Your task to perform on an android device: Open Google Chrome Image 0: 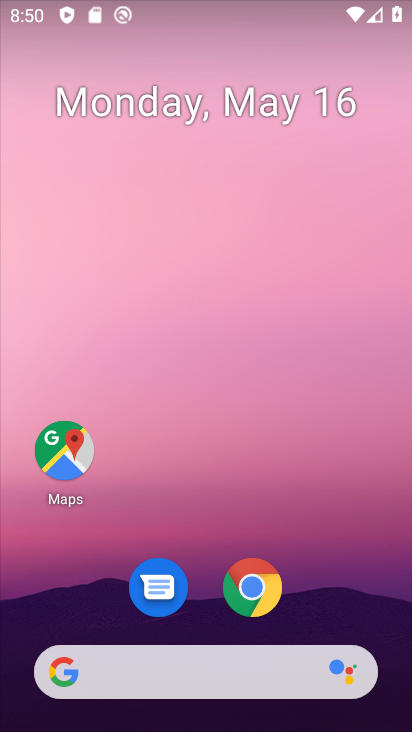
Step 0: click (262, 584)
Your task to perform on an android device: Open Google Chrome Image 1: 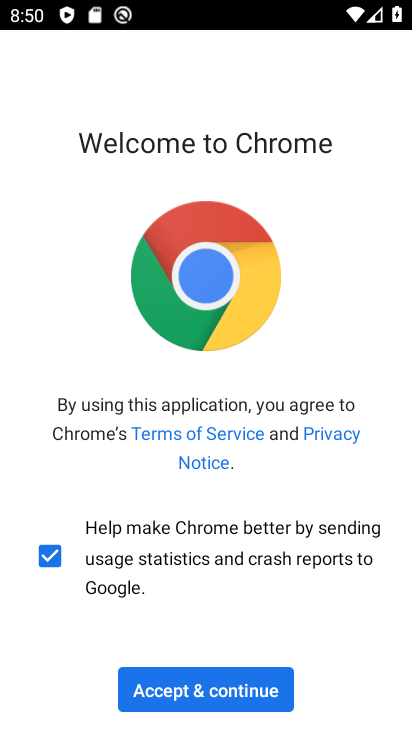
Step 1: click (244, 680)
Your task to perform on an android device: Open Google Chrome Image 2: 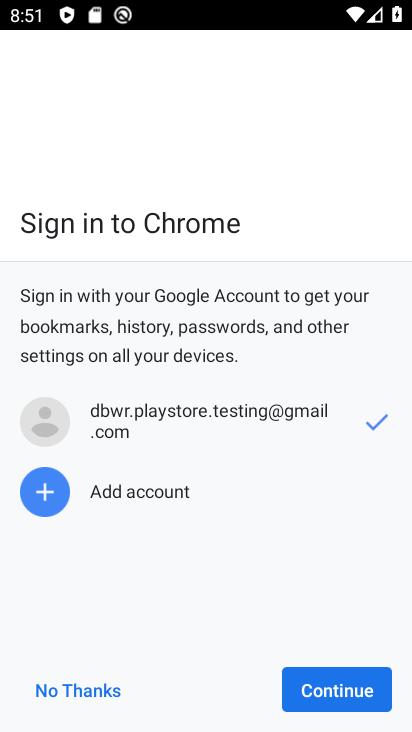
Step 2: click (338, 692)
Your task to perform on an android device: Open Google Chrome Image 3: 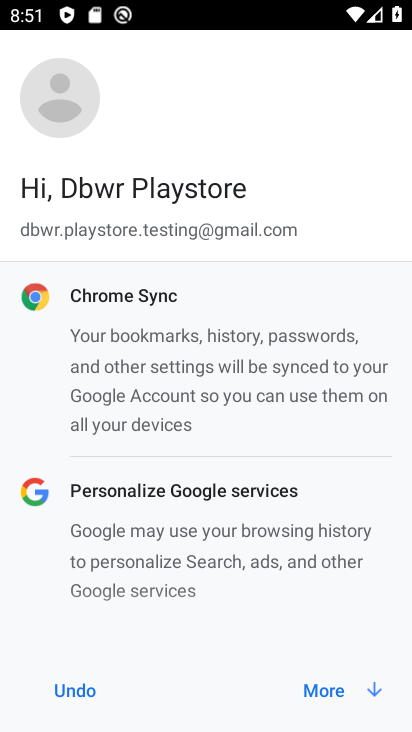
Step 3: click (338, 692)
Your task to perform on an android device: Open Google Chrome Image 4: 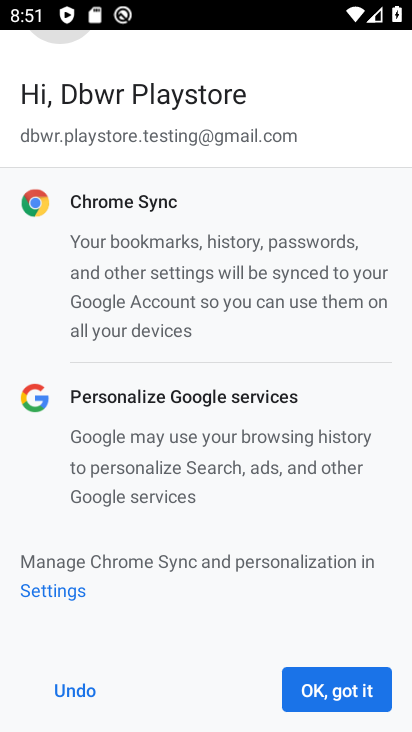
Step 4: click (338, 692)
Your task to perform on an android device: Open Google Chrome Image 5: 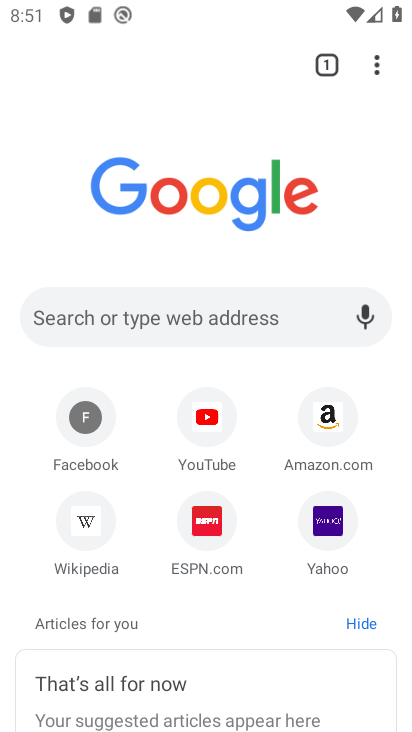
Step 5: task complete